Your task to perform on an android device: stop showing notifications on the lock screen Image 0: 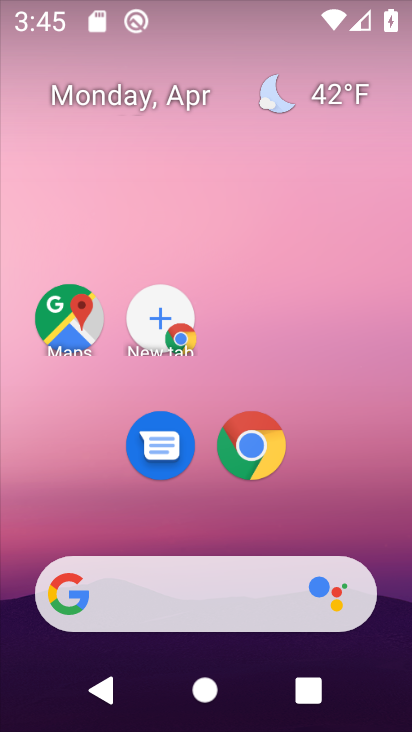
Step 0: drag from (210, 517) to (213, 40)
Your task to perform on an android device: stop showing notifications on the lock screen Image 1: 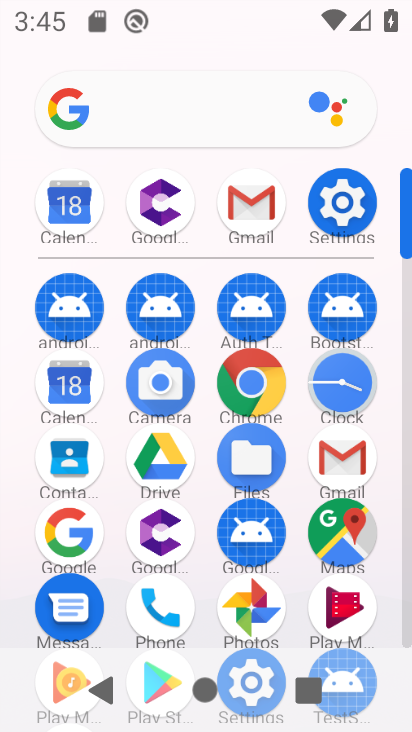
Step 1: click (339, 201)
Your task to perform on an android device: stop showing notifications on the lock screen Image 2: 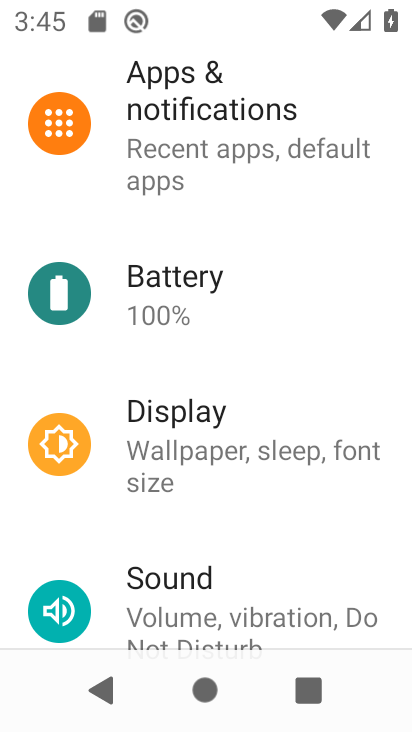
Step 2: click (222, 131)
Your task to perform on an android device: stop showing notifications on the lock screen Image 3: 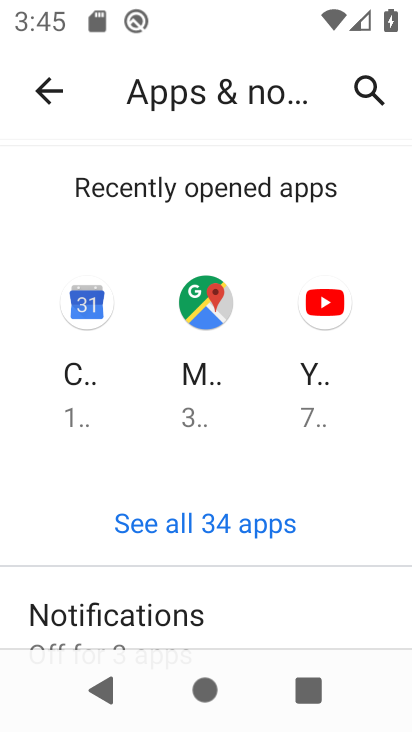
Step 3: drag from (218, 577) to (216, 127)
Your task to perform on an android device: stop showing notifications on the lock screen Image 4: 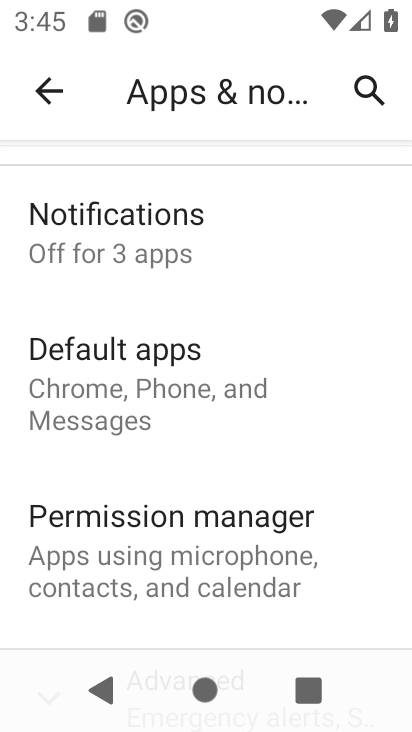
Step 4: drag from (202, 590) to (196, 234)
Your task to perform on an android device: stop showing notifications on the lock screen Image 5: 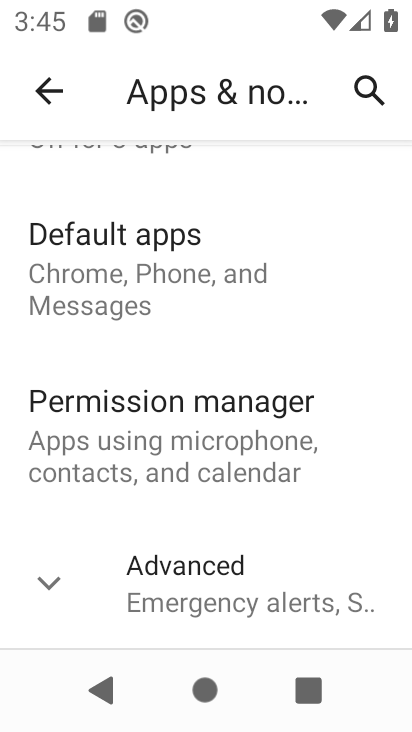
Step 5: drag from (146, 231) to (150, 571)
Your task to perform on an android device: stop showing notifications on the lock screen Image 6: 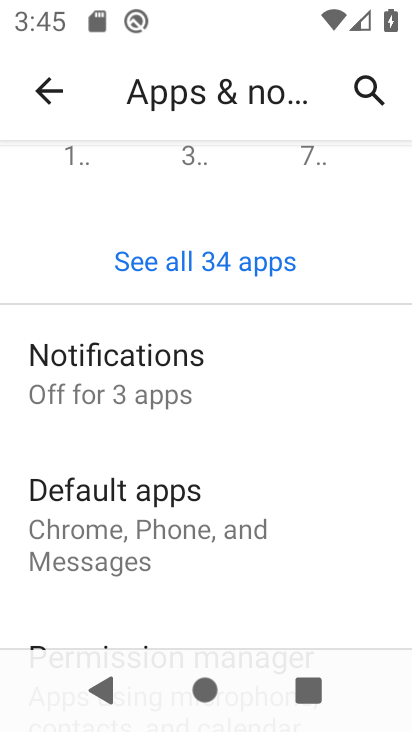
Step 6: click (202, 382)
Your task to perform on an android device: stop showing notifications on the lock screen Image 7: 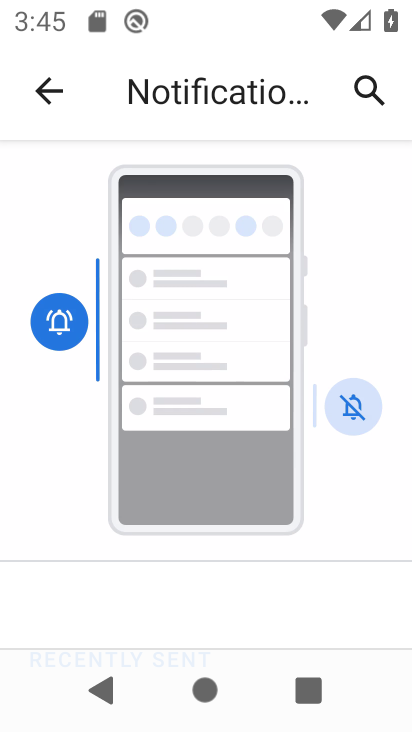
Step 7: drag from (191, 621) to (198, 114)
Your task to perform on an android device: stop showing notifications on the lock screen Image 8: 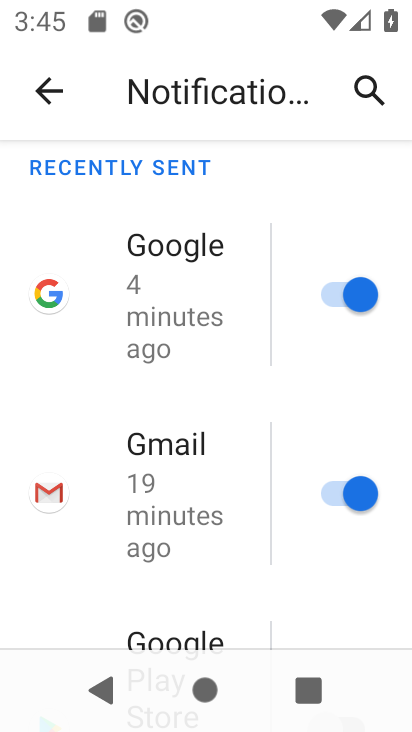
Step 8: drag from (232, 607) to (239, 103)
Your task to perform on an android device: stop showing notifications on the lock screen Image 9: 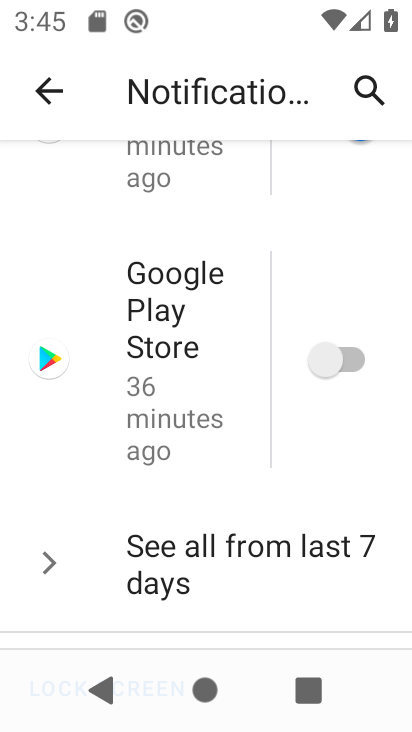
Step 9: drag from (204, 593) to (233, 185)
Your task to perform on an android device: stop showing notifications on the lock screen Image 10: 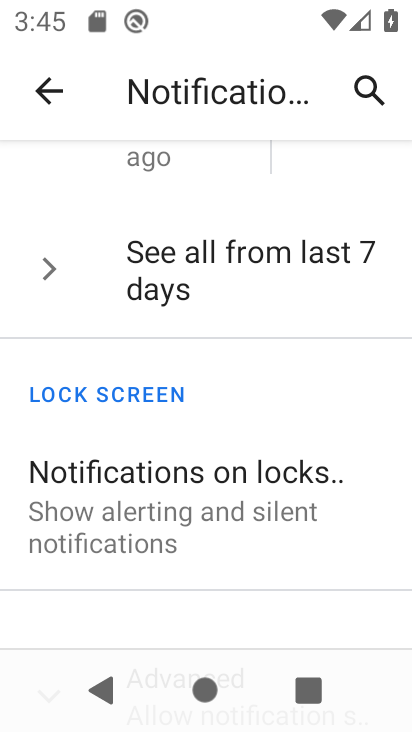
Step 10: click (194, 489)
Your task to perform on an android device: stop showing notifications on the lock screen Image 11: 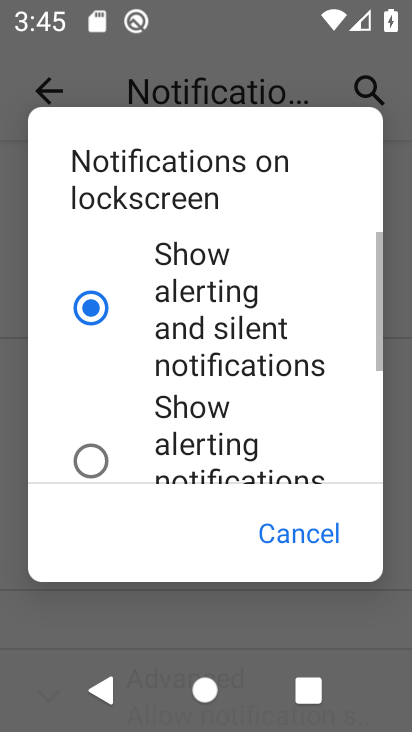
Step 11: drag from (152, 416) to (159, 133)
Your task to perform on an android device: stop showing notifications on the lock screen Image 12: 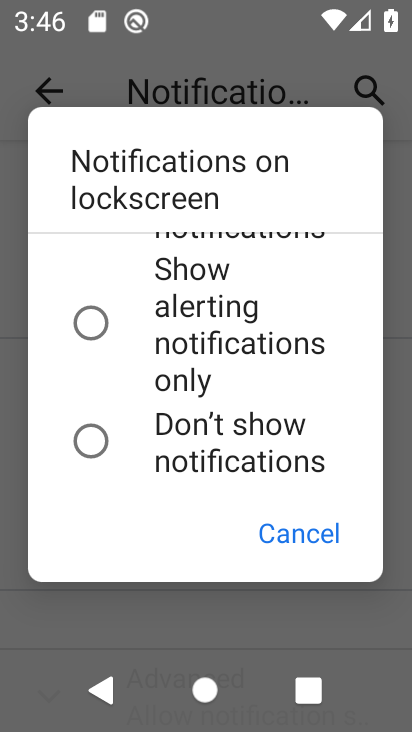
Step 12: click (97, 437)
Your task to perform on an android device: stop showing notifications on the lock screen Image 13: 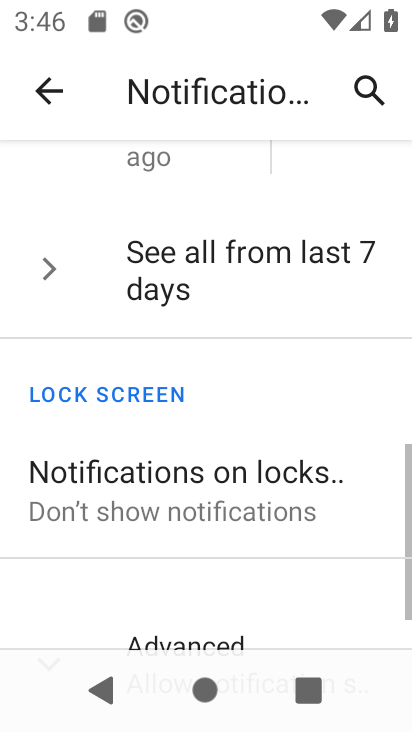
Step 13: task complete